Your task to perform on an android device: delete the emails in spam in the gmail app Image 0: 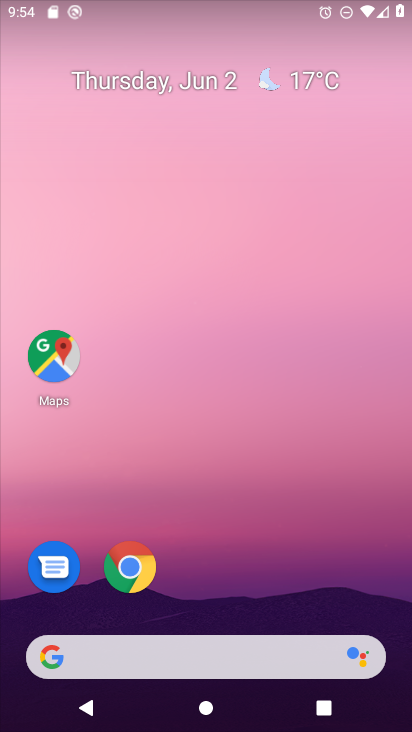
Step 0: drag from (194, 597) to (220, 135)
Your task to perform on an android device: delete the emails in spam in the gmail app Image 1: 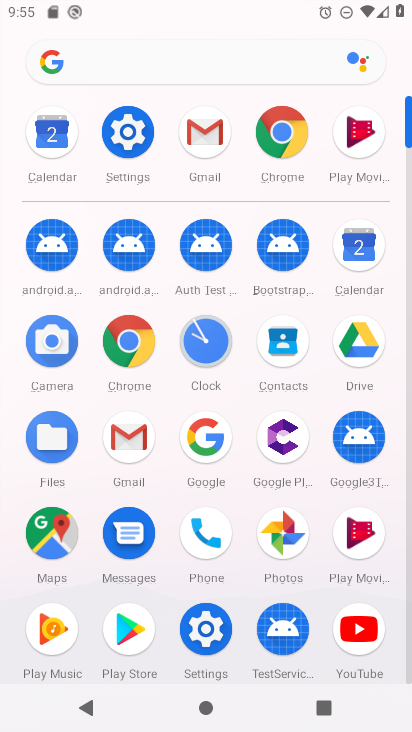
Step 1: click (112, 431)
Your task to perform on an android device: delete the emails in spam in the gmail app Image 2: 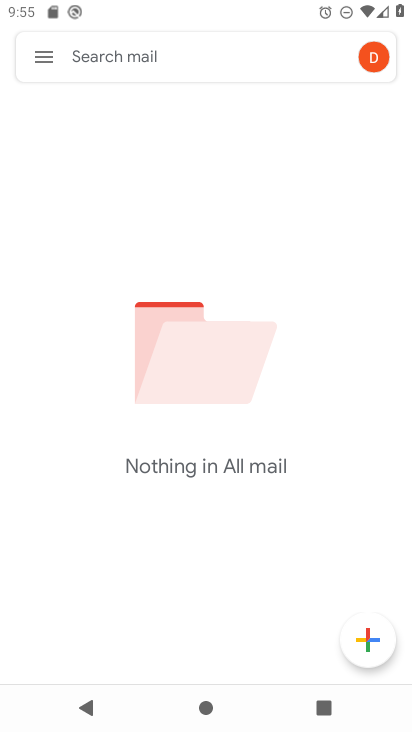
Step 2: click (47, 45)
Your task to perform on an android device: delete the emails in spam in the gmail app Image 3: 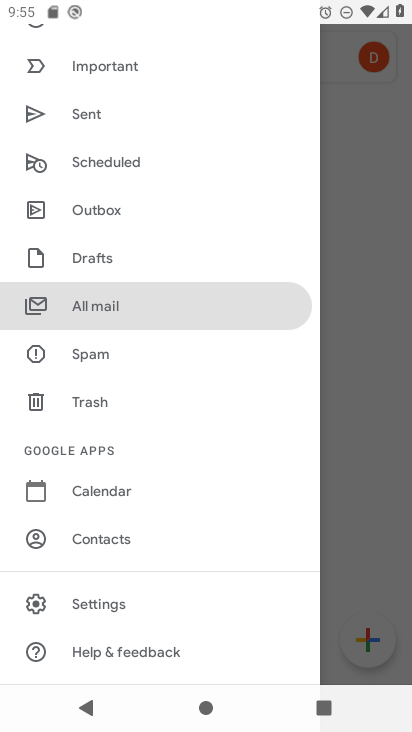
Step 3: click (112, 355)
Your task to perform on an android device: delete the emails in spam in the gmail app Image 4: 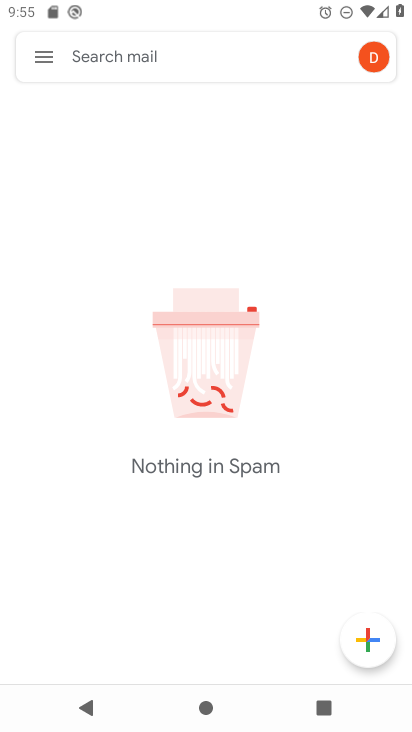
Step 4: task complete